Your task to perform on an android device: allow notifications from all sites in the chrome app Image 0: 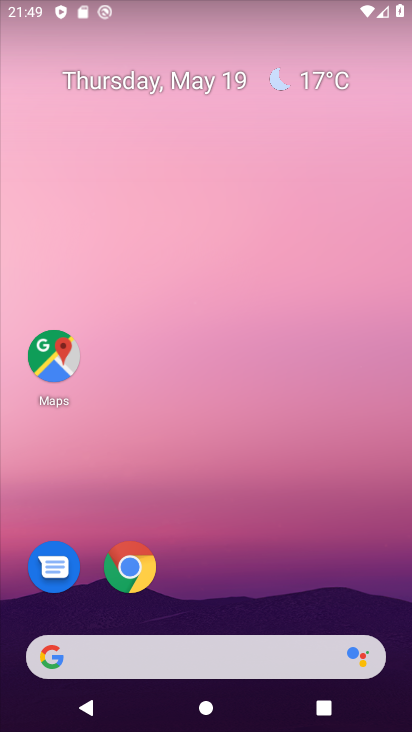
Step 0: click (129, 566)
Your task to perform on an android device: allow notifications from all sites in the chrome app Image 1: 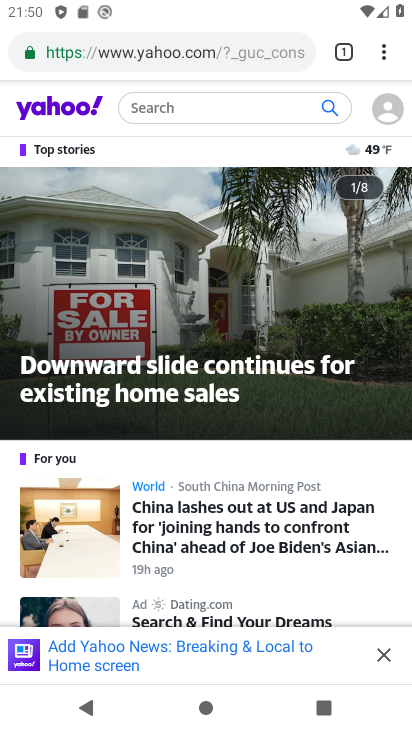
Step 1: click (386, 56)
Your task to perform on an android device: allow notifications from all sites in the chrome app Image 2: 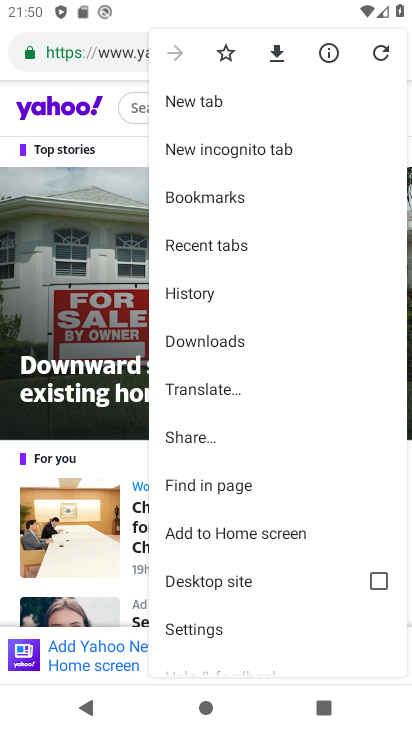
Step 2: drag from (392, 527) to (273, 191)
Your task to perform on an android device: allow notifications from all sites in the chrome app Image 3: 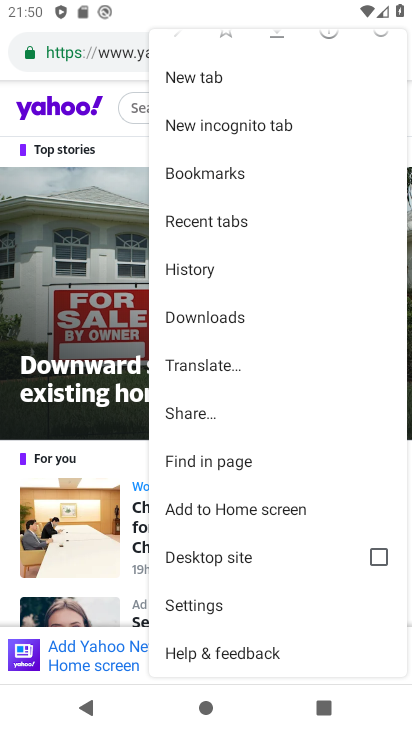
Step 3: click (240, 607)
Your task to perform on an android device: allow notifications from all sites in the chrome app Image 4: 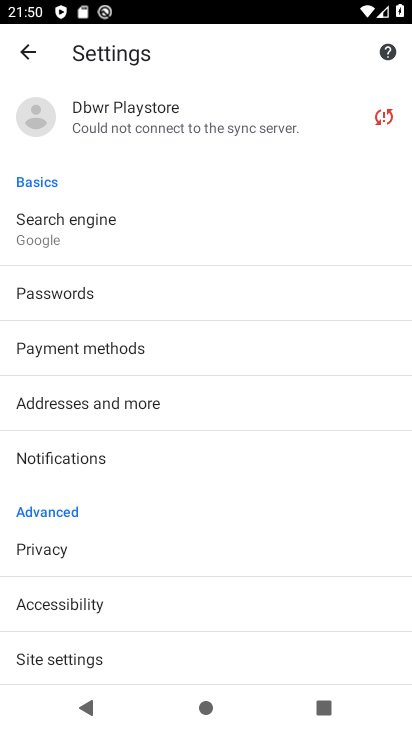
Step 4: click (119, 467)
Your task to perform on an android device: allow notifications from all sites in the chrome app Image 5: 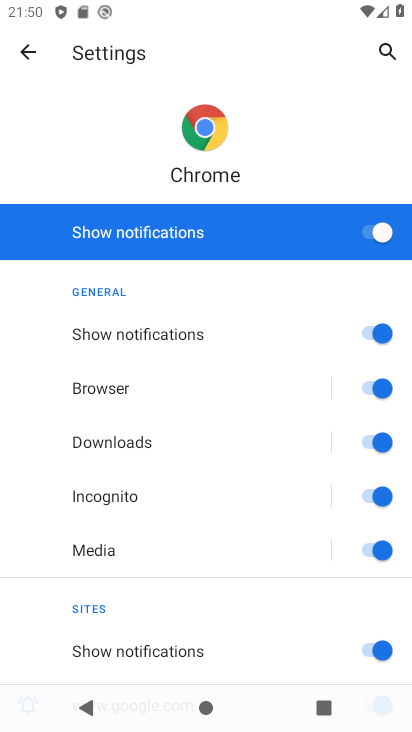
Step 5: task complete